Your task to perform on an android device: turn on sleep mode Image 0: 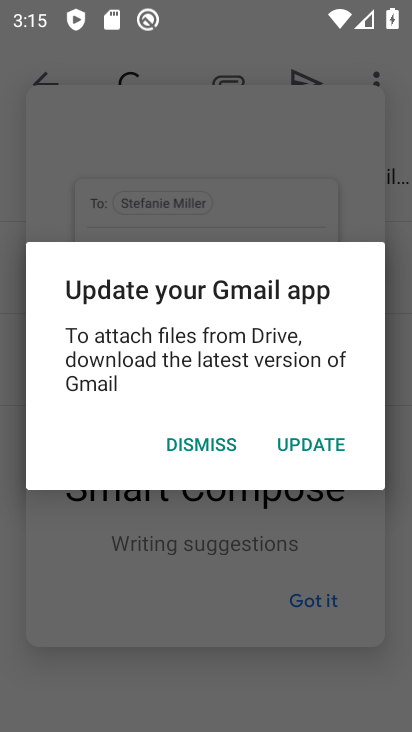
Step 0: press back button
Your task to perform on an android device: turn on sleep mode Image 1: 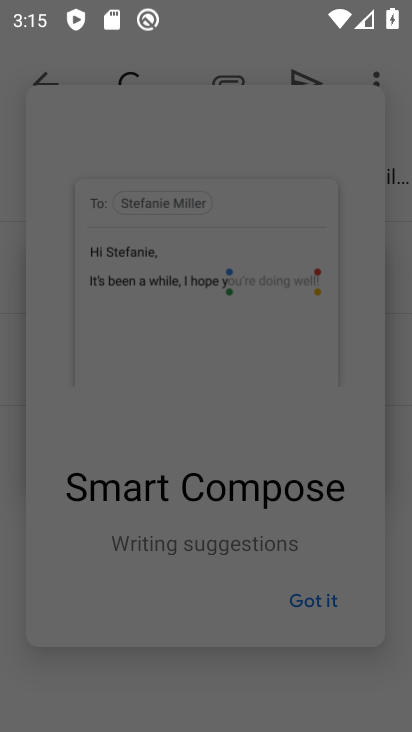
Step 1: press home button
Your task to perform on an android device: turn on sleep mode Image 2: 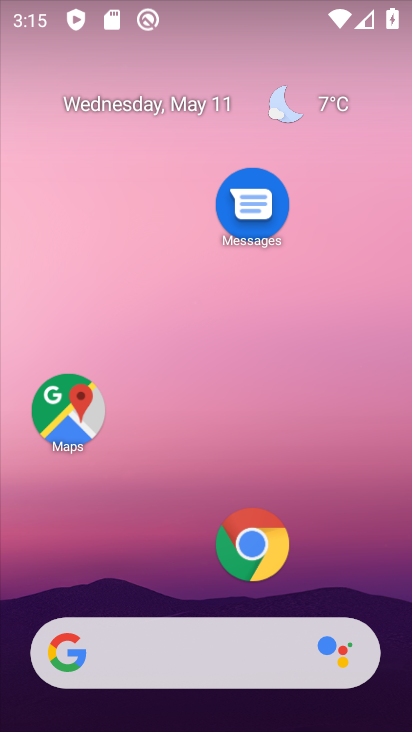
Step 2: drag from (167, 557) to (242, 24)
Your task to perform on an android device: turn on sleep mode Image 3: 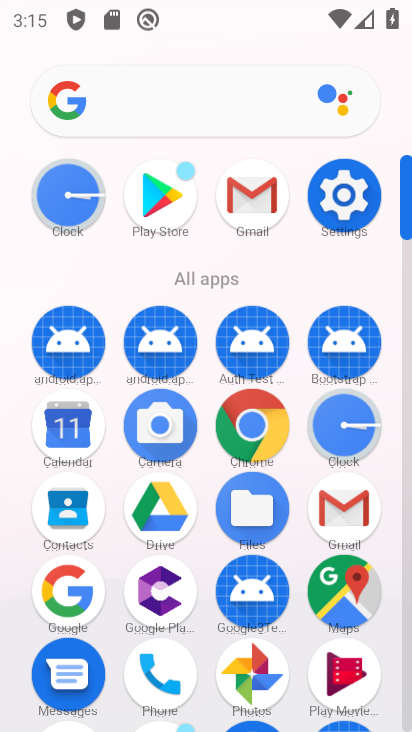
Step 3: click (337, 200)
Your task to perform on an android device: turn on sleep mode Image 4: 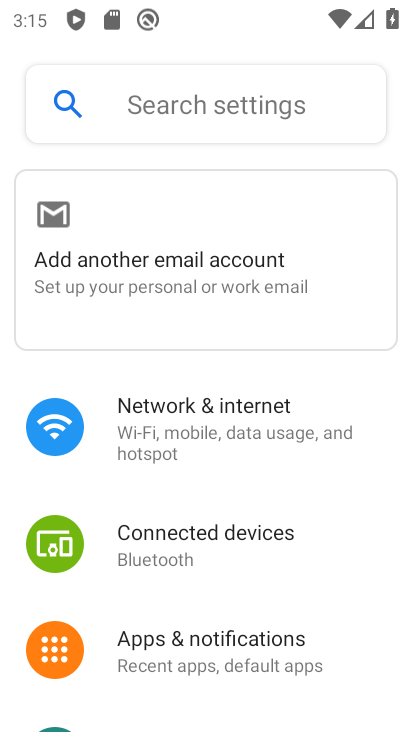
Step 4: click (189, 109)
Your task to perform on an android device: turn on sleep mode Image 5: 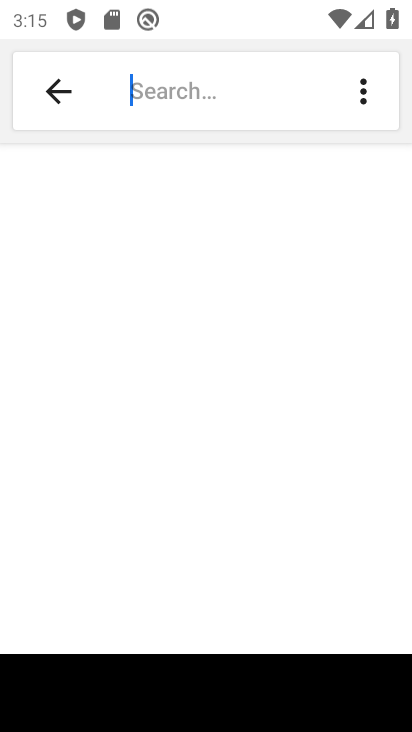
Step 5: type "sleep mode"
Your task to perform on an android device: turn on sleep mode Image 6: 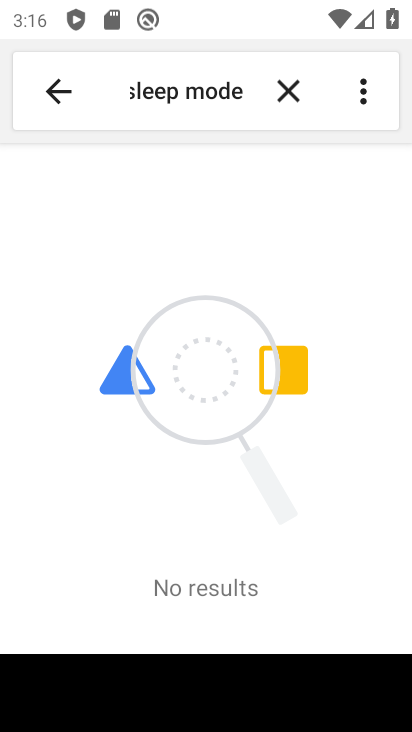
Step 6: task complete